Your task to perform on an android device: Open Youtube and go to "Your channel" Image 0: 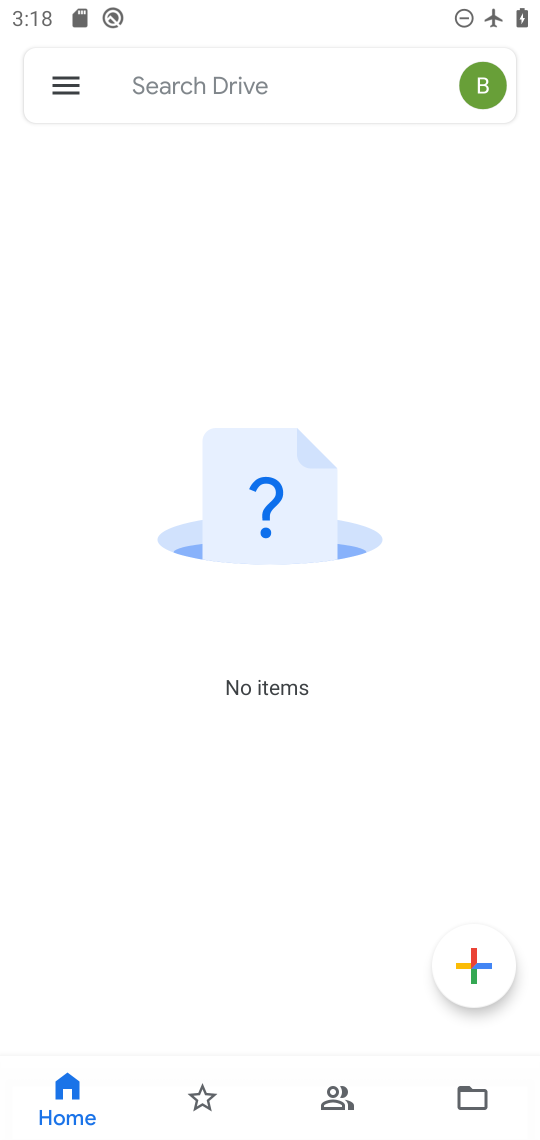
Step 0: press back button
Your task to perform on an android device: Open Youtube and go to "Your channel" Image 1: 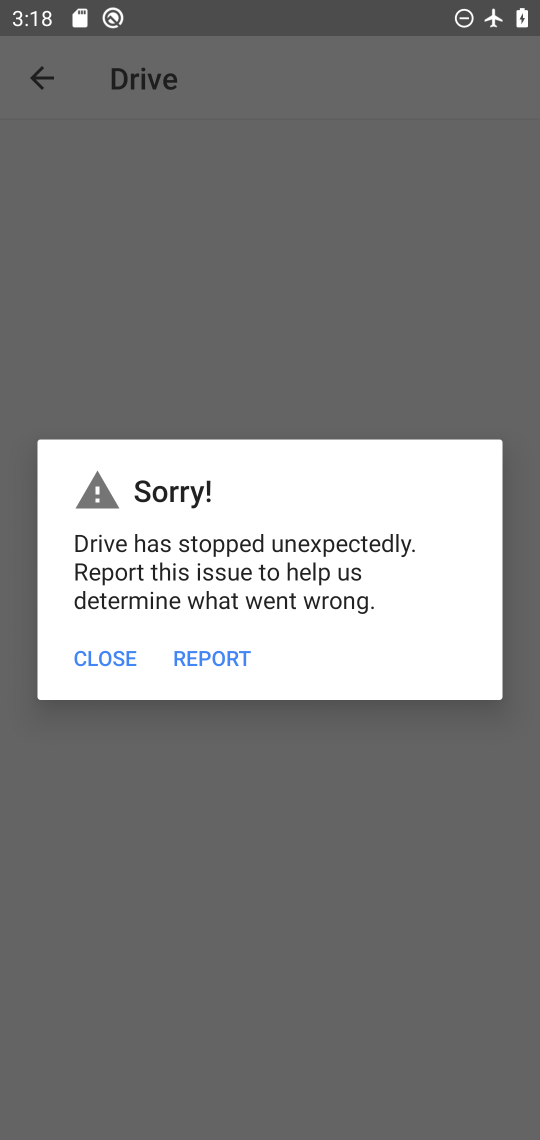
Step 1: press back button
Your task to perform on an android device: Open Youtube and go to "Your channel" Image 2: 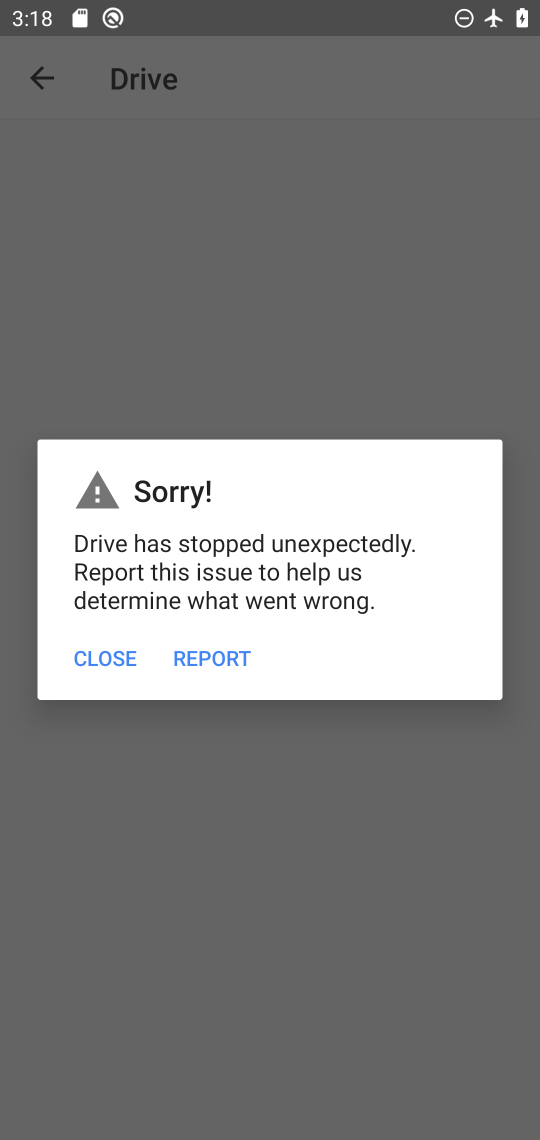
Step 2: press back button
Your task to perform on an android device: Open Youtube and go to "Your channel" Image 3: 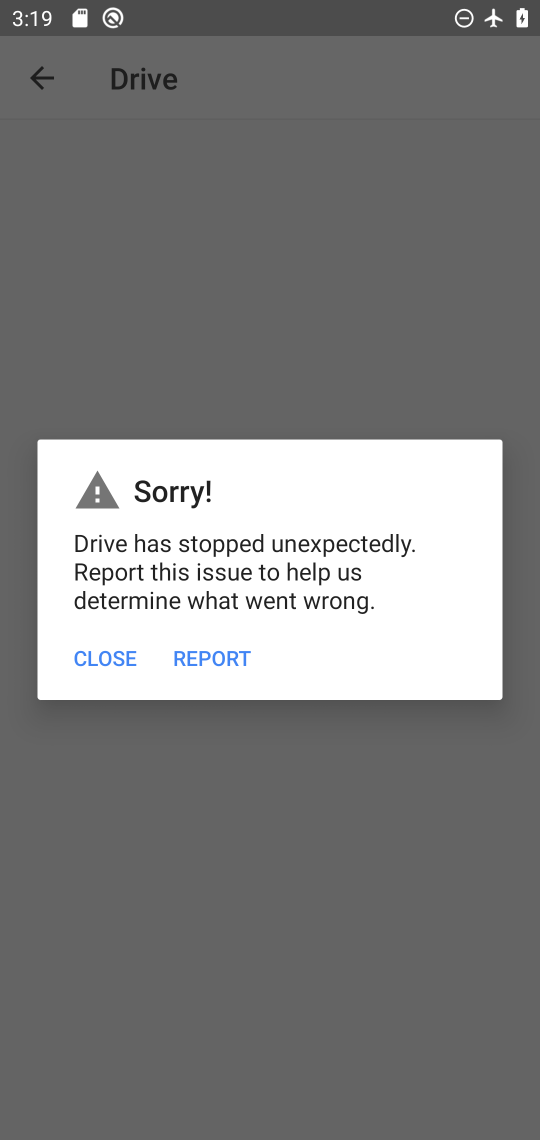
Step 3: press home button
Your task to perform on an android device: Open Youtube and go to "Your channel" Image 4: 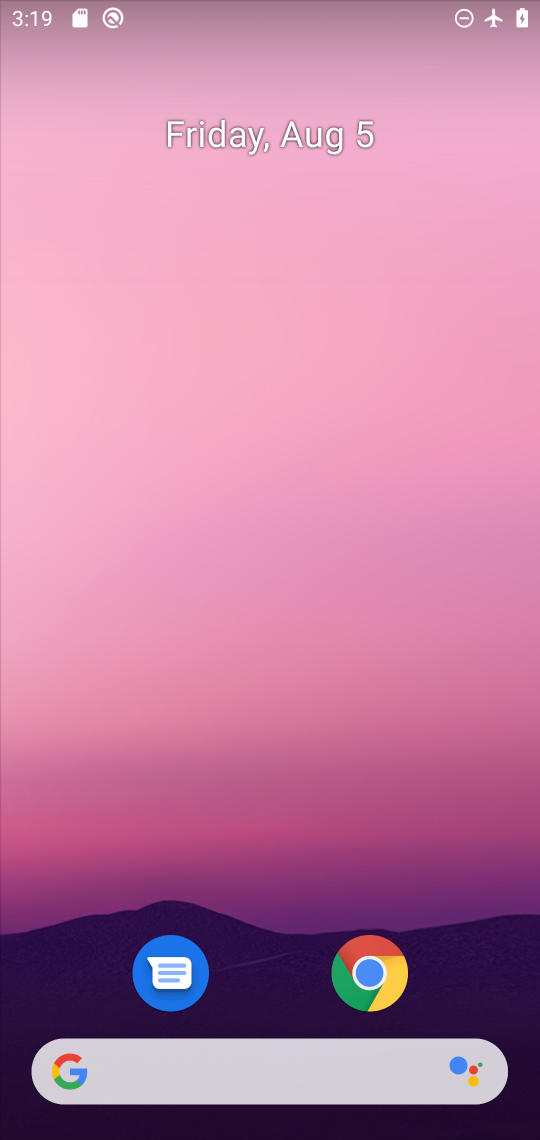
Step 4: drag from (293, 993) to (267, 194)
Your task to perform on an android device: Open Youtube and go to "Your channel" Image 5: 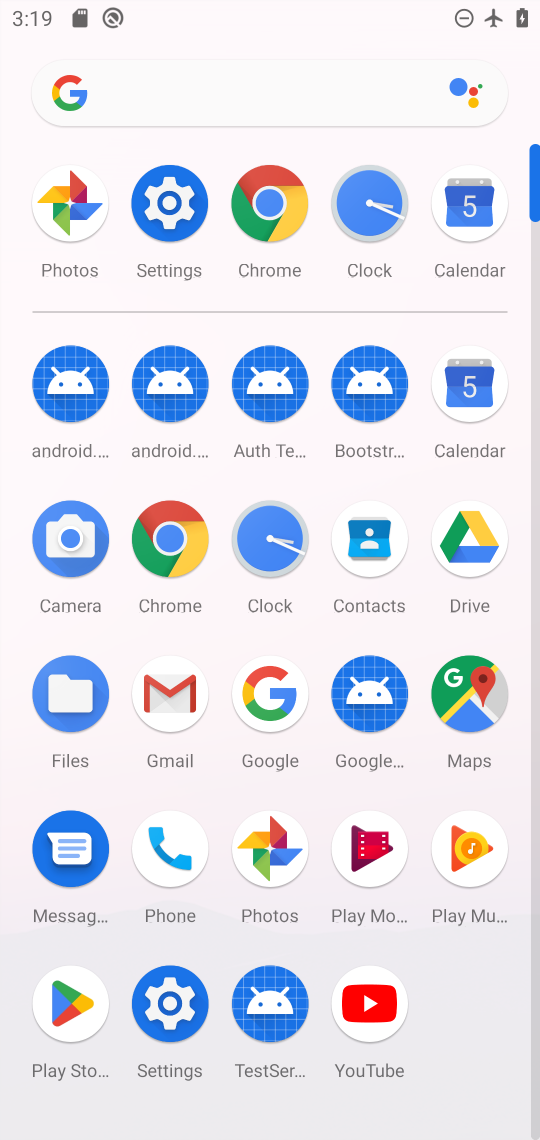
Step 5: click (373, 1025)
Your task to perform on an android device: Open Youtube and go to "Your channel" Image 6: 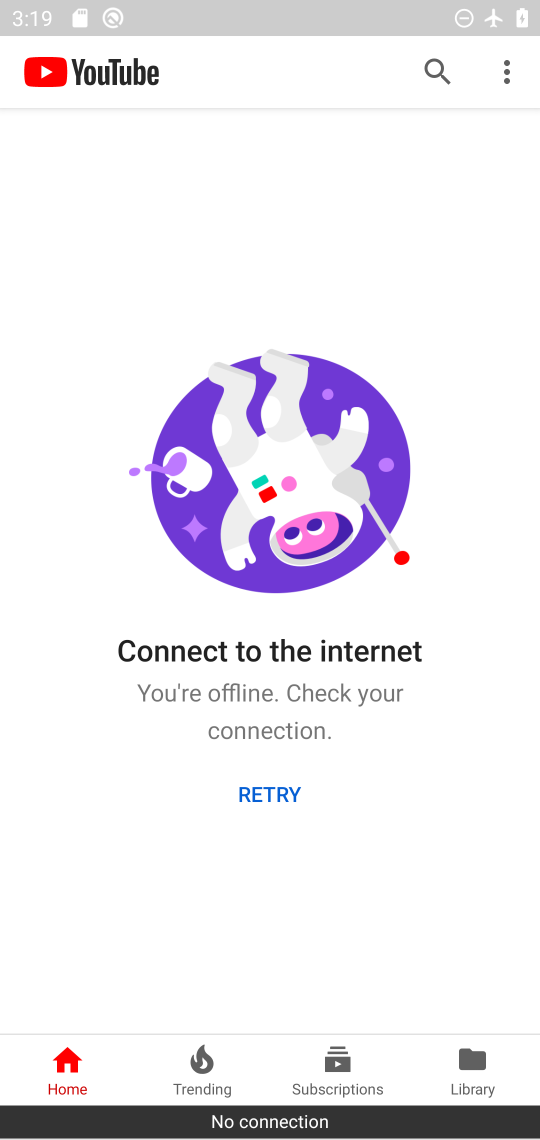
Step 6: click (498, 80)
Your task to perform on an android device: Open Youtube and go to "Your channel" Image 7: 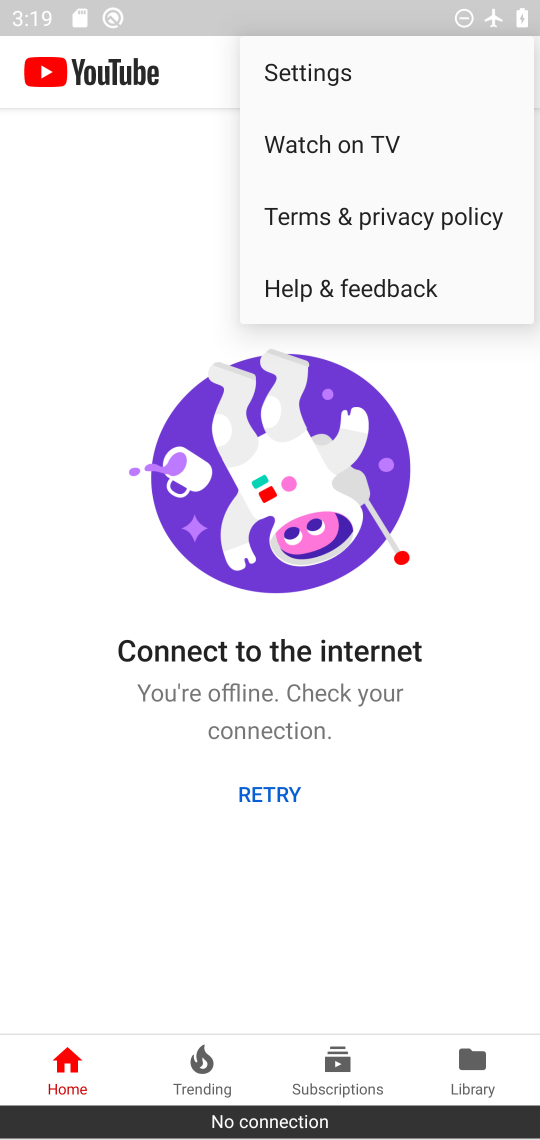
Step 7: click (159, 270)
Your task to perform on an android device: Open Youtube and go to "Your channel" Image 8: 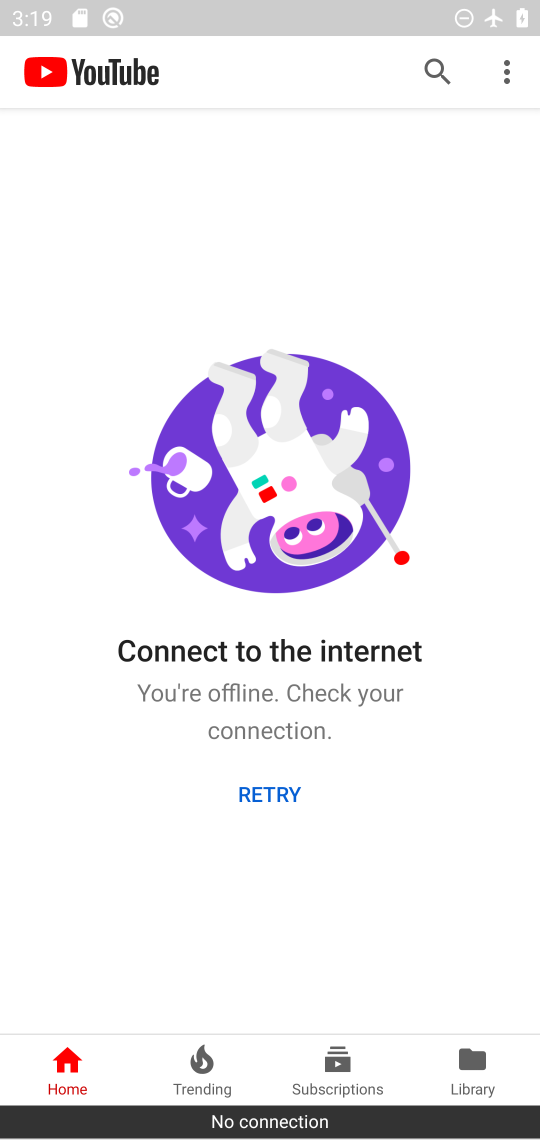
Step 8: task complete